Your task to perform on an android device: Open Chrome and go to settings Image 0: 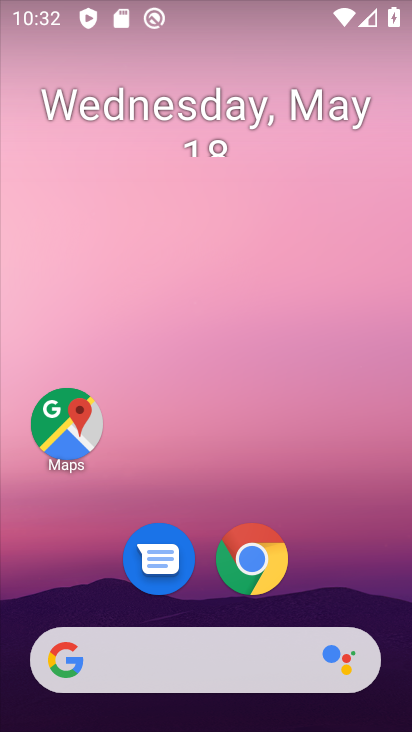
Step 0: click (253, 555)
Your task to perform on an android device: Open Chrome and go to settings Image 1: 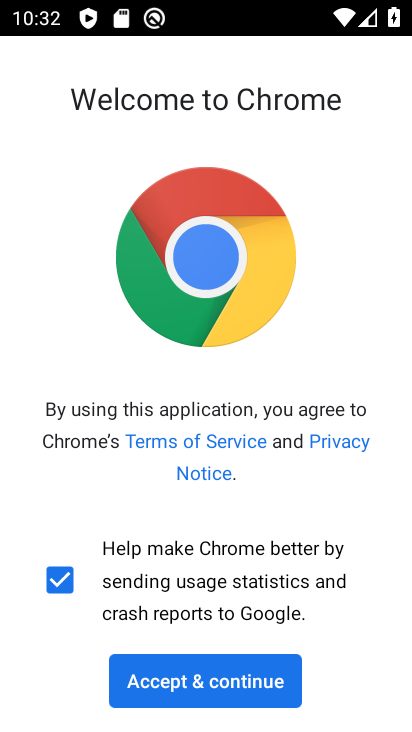
Step 1: click (216, 682)
Your task to perform on an android device: Open Chrome and go to settings Image 2: 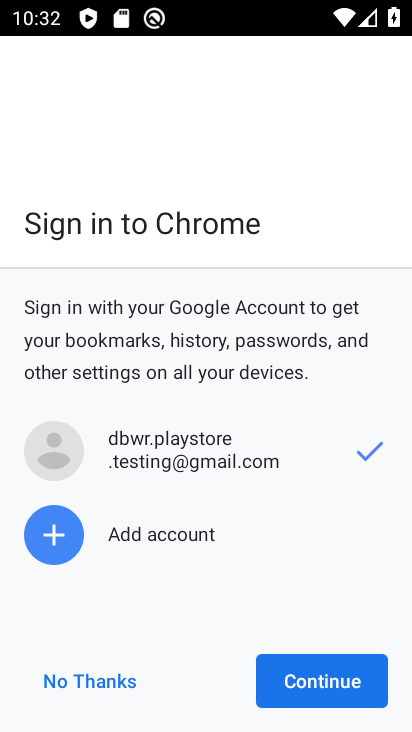
Step 2: click (304, 681)
Your task to perform on an android device: Open Chrome and go to settings Image 3: 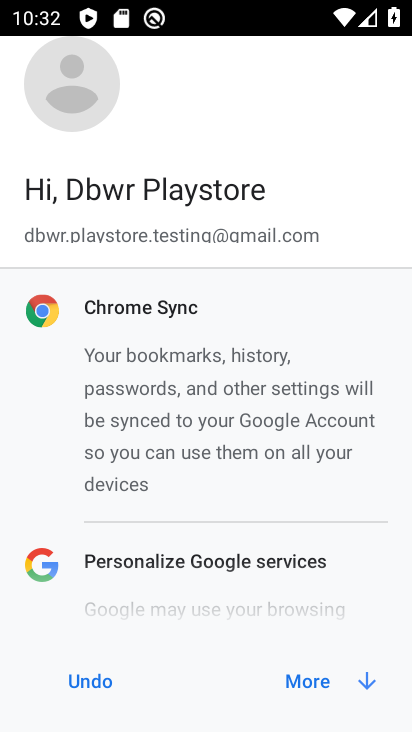
Step 3: click (370, 677)
Your task to perform on an android device: Open Chrome and go to settings Image 4: 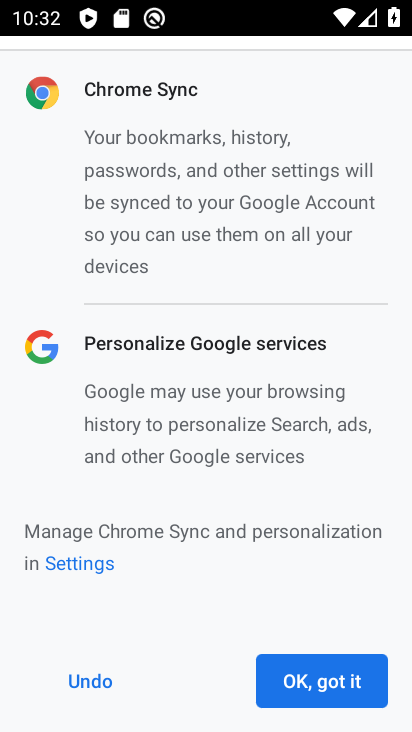
Step 4: click (287, 699)
Your task to perform on an android device: Open Chrome and go to settings Image 5: 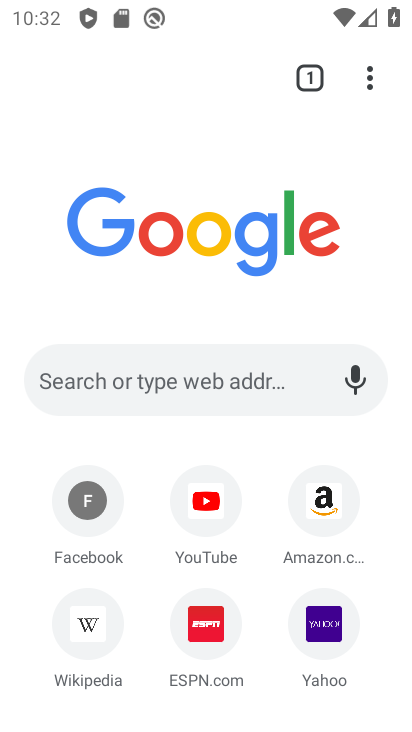
Step 5: click (360, 80)
Your task to perform on an android device: Open Chrome and go to settings Image 6: 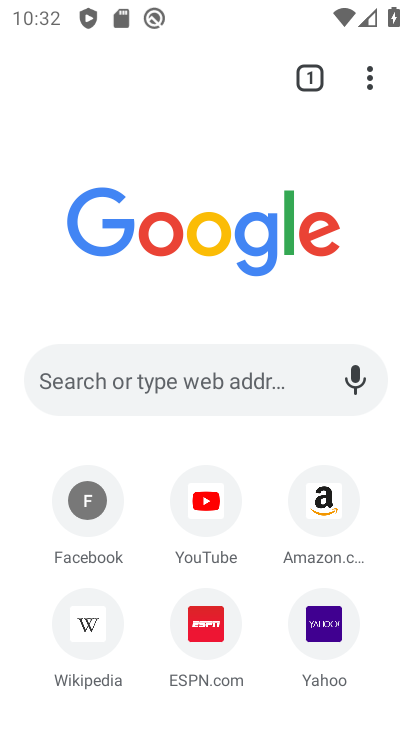
Step 6: task complete